Your task to perform on an android device: move a message to another label in the gmail app Image 0: 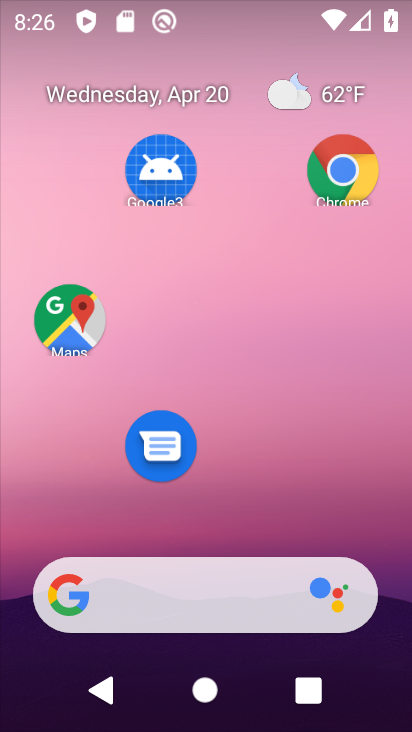
Step 0: drag from (249, 503) to (285, 28)
Your task to perform on an android device: move a message to another label in the gmail app Image 1: 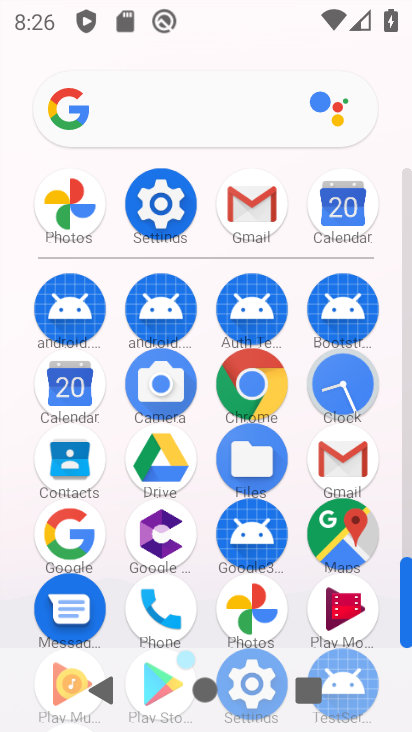
Step 1: click (242, 218)
Your task to perform on an android device: move a message to another label in the gmail app Image 2: 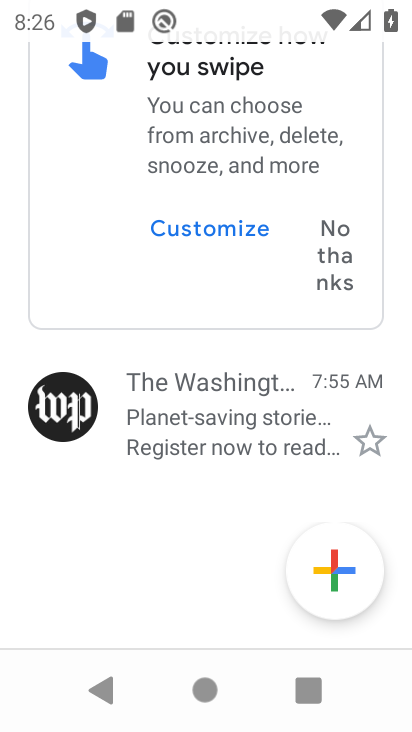
Step 2: click (161, 388)
Your task to perform on an android device: move a message to another label in the gmail app Image 3: 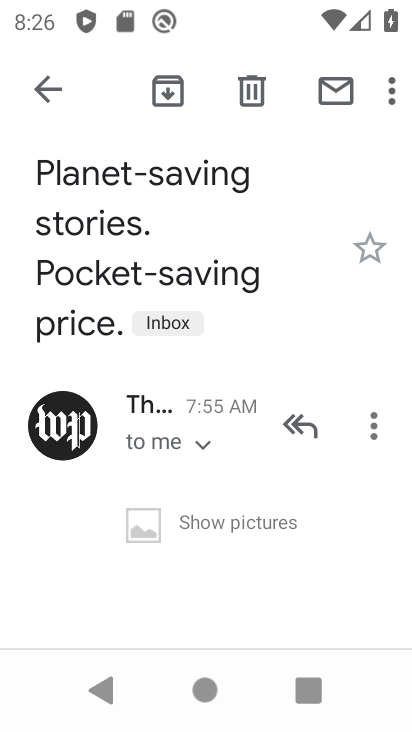
Step 3: click (394, 87)
Your task to perform on an android device: move a message to another label in the gmail app Image 4: 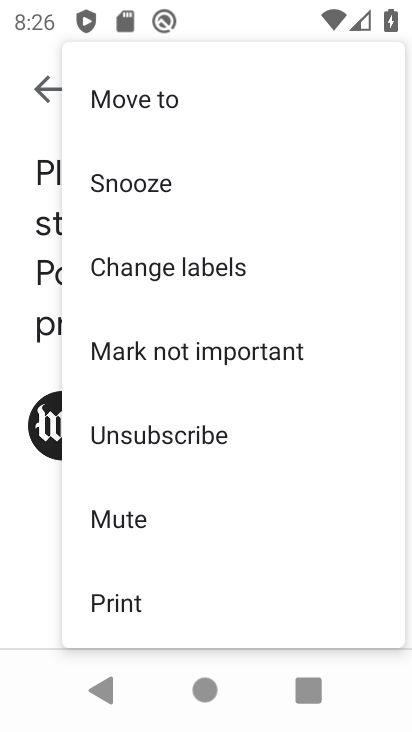
Step 4: click (194, 268)
Your task to perform on an android device: move a message to another label in the gmail app Image 5: 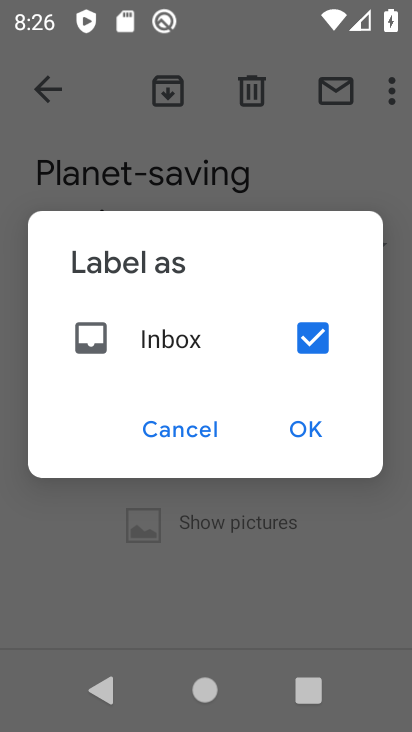
Step 5: click (314, 425)
Your task to perform on an android device: move a message to another label in the gmail app Image 6: 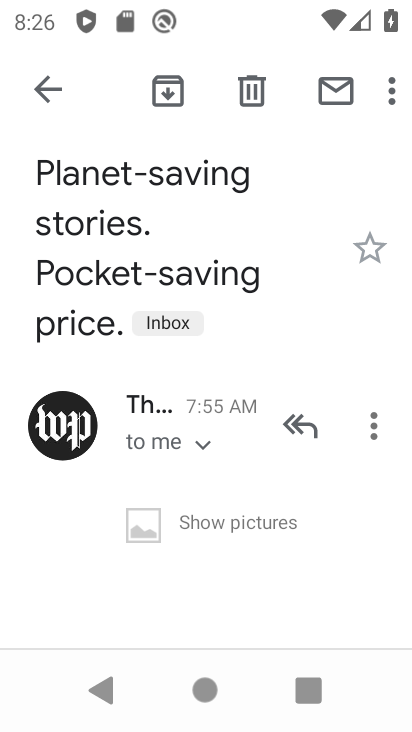
Step 6: task complete